Your task to perform on an android device: turn on the 12-hour format for clock Image 0: 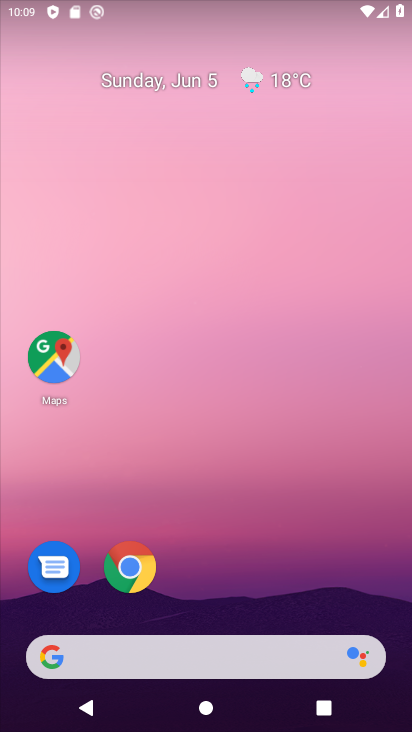
Step 0: drag from (182, 599) to (239, 6)
Your task to perform on an android device: turn on the 12-hour format for clock Image 1: 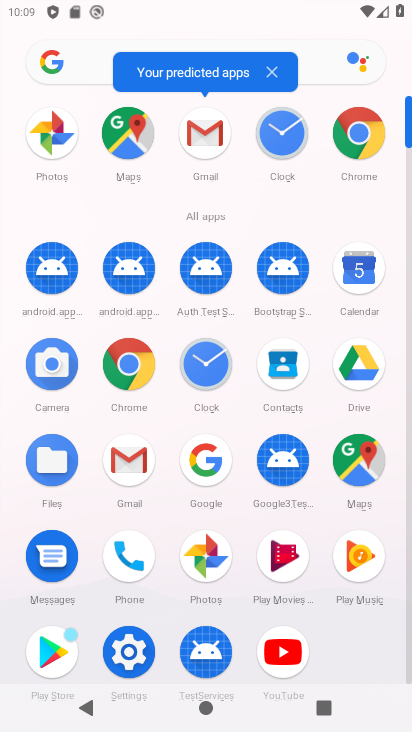
Step 1: click (137, 719)
Your task to perform on an android device: turn on the 12-hour format for clock Image 2: 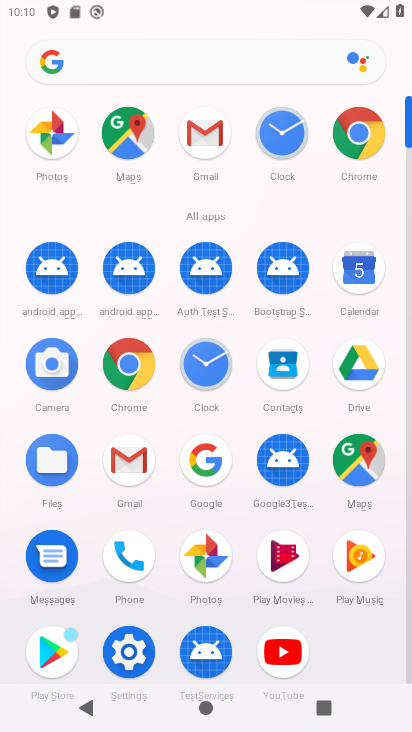
Step 2: click (129, 658)
Your task to perform on an android device: turn on the 12-hour format for clock Image 3: 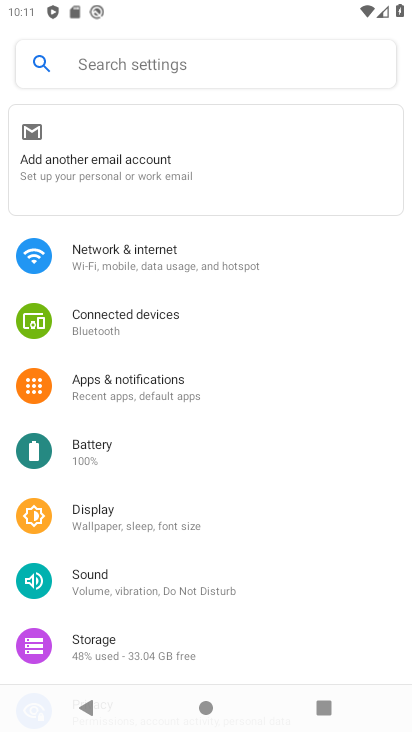
Step 3: drag from (163, 538) to (214, 180)
Your task to perform on an android device: turn on the 12-hour format for clock Image 4: 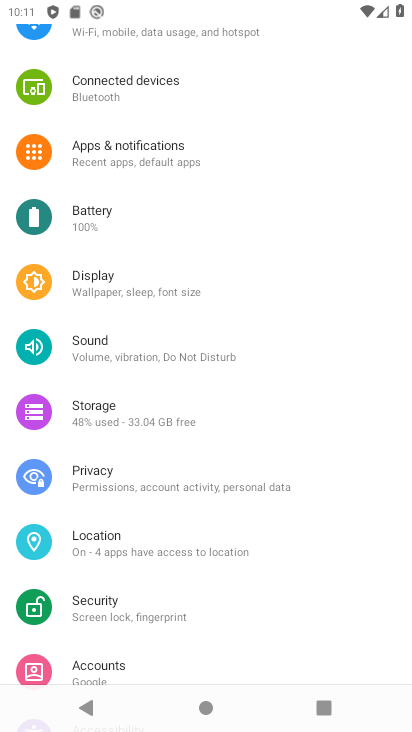
Step 4: click (155, 213)
Your task to perform on an android device: turn on the 12-hour format for clock Image 5: 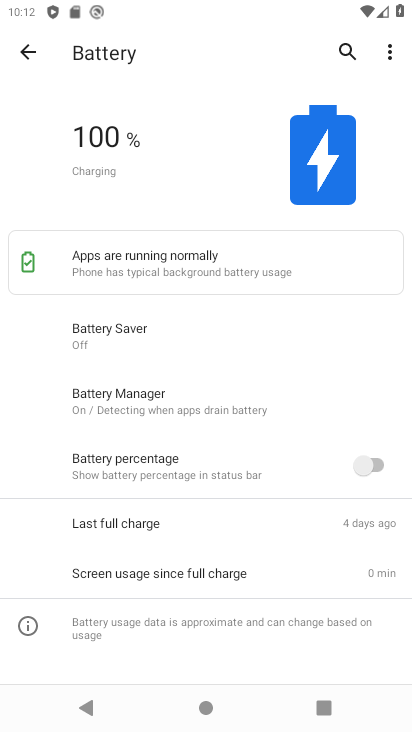
Step 5: task complete